Your task to perform on an android device: turn off smart reply in the gmail app Image 0: 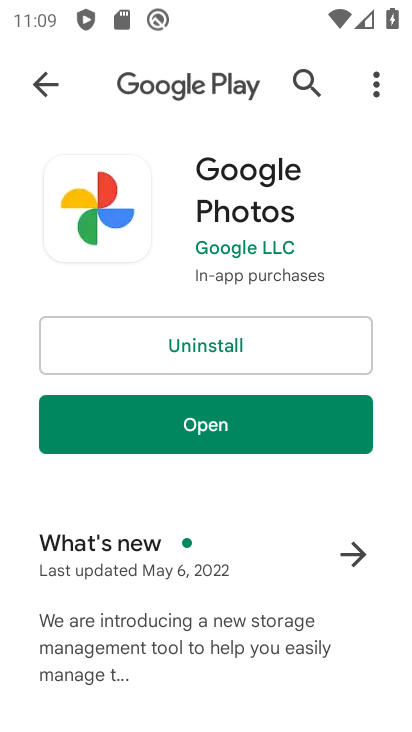
Step 0: press home button
Your task to perform on an android device: turn off smart reply in the gmail app Image 1: 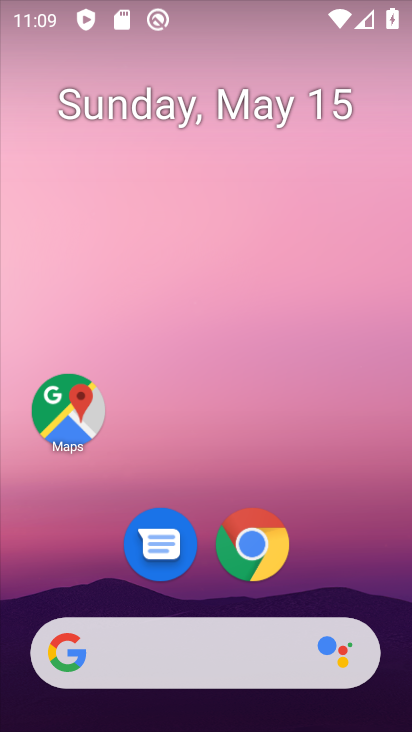
Step 1: drag from (381, 563) to (343, 262)
Your task to perform on an android device: turn off smart reply in the gmail app Image 2: 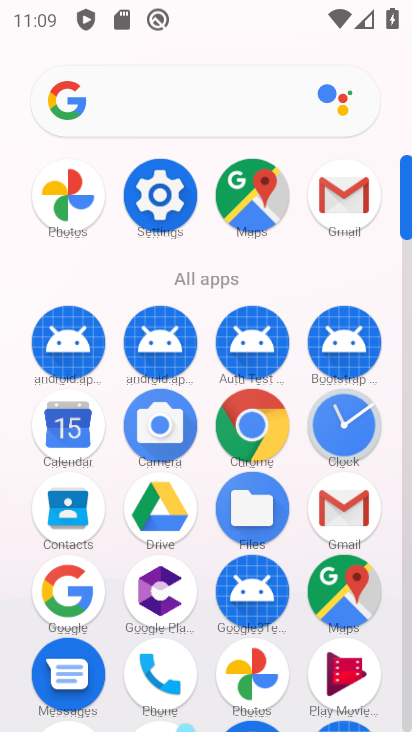
Step 2: click (352, 177)
Your task to perform on an android device: turn off smart reply in the gmail app Image 3: 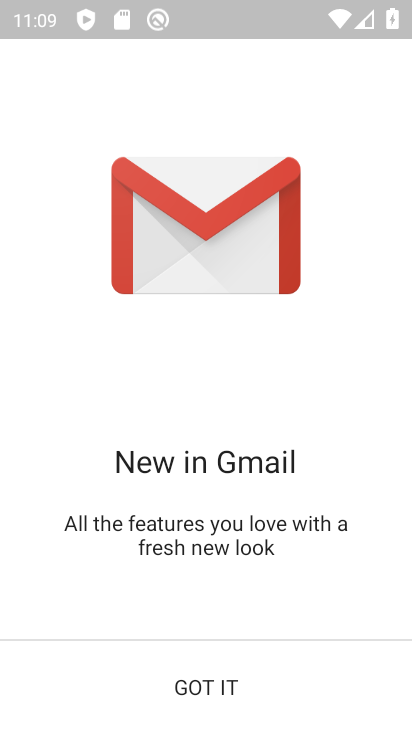
Step 3: click (200, 691)
Your task to perform on an android device: turn off smart reply in the gmail app Image 4: 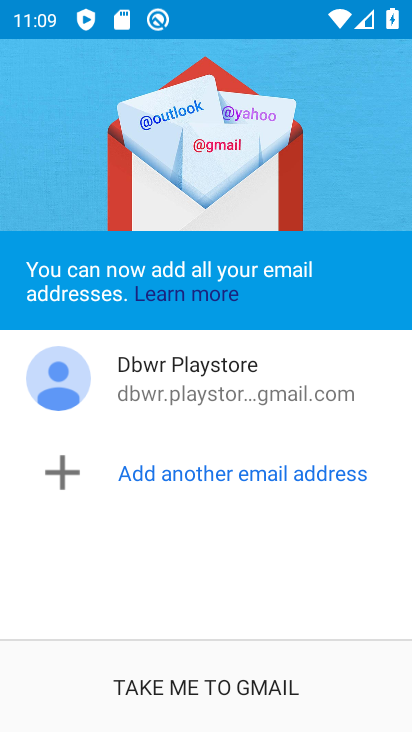
Step 4: click (264, 685)
Your task to perform on an android device: turn off smart reply in the gmail app Image 5: 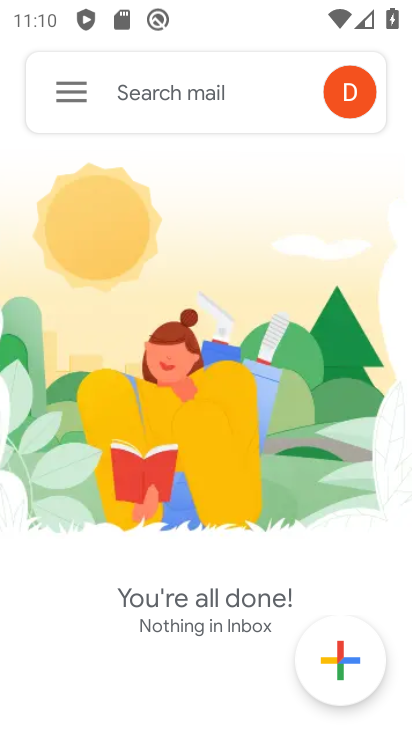
Step 5: click (68, 98)
Your task to perform on an android device: turn off smart reply in the gmail app Image 6: 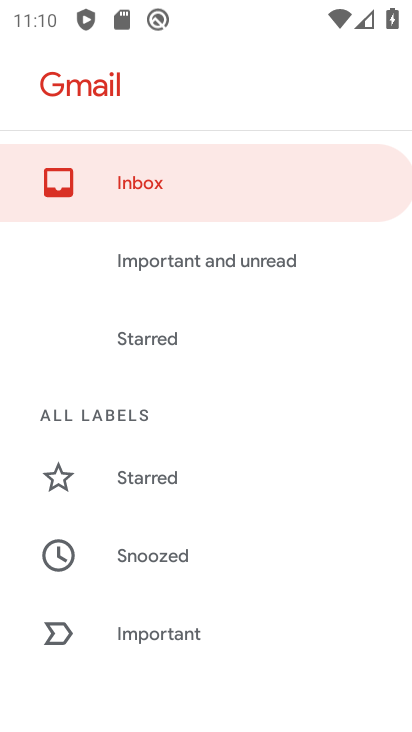
Step 6: drag from (279, 648) to (202, 220)
Your task to perform on an android device: turn off smart reply in the gmail app Image 7: 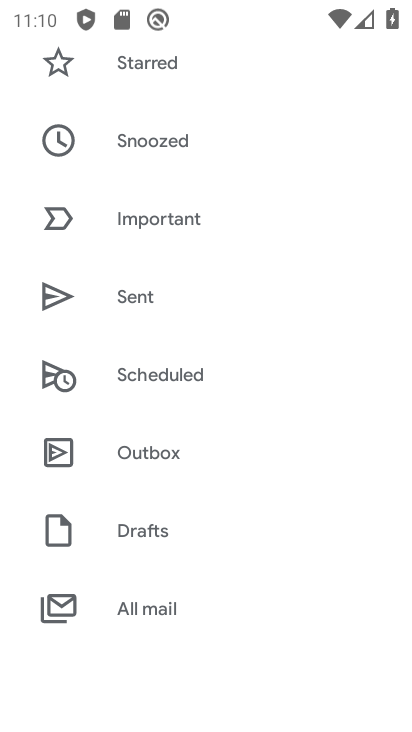
Step 7: drag from (306, 595) to (180, 108)
Your task to perform on an android device: turn off smart reply in the gmail app Image 8: 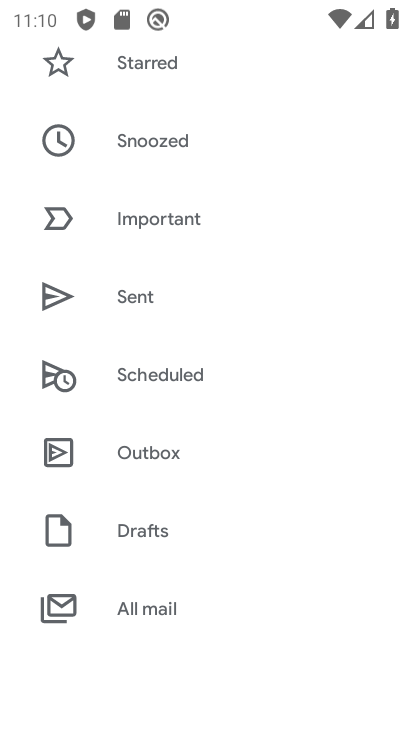
Step 8: drag from (225, 642) to (197, 183)
Your task to perform on an android device: turn off smart reply in the gmail app Image 9: 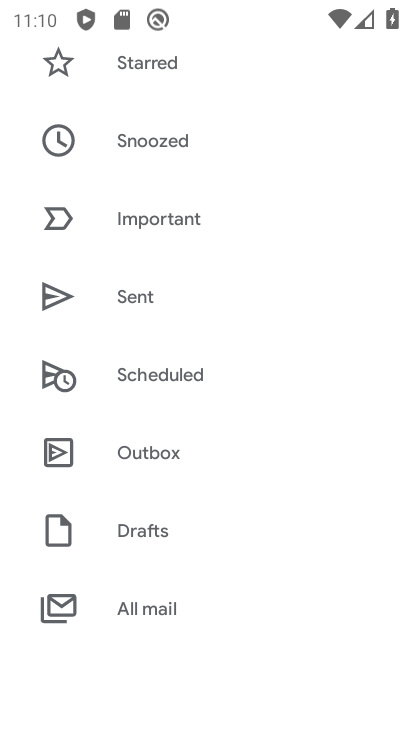
Step 9: drag from (361, 572) to (272, 30)
Your task to perform on an android device: turn off smart reply in the gmail app Image 10: 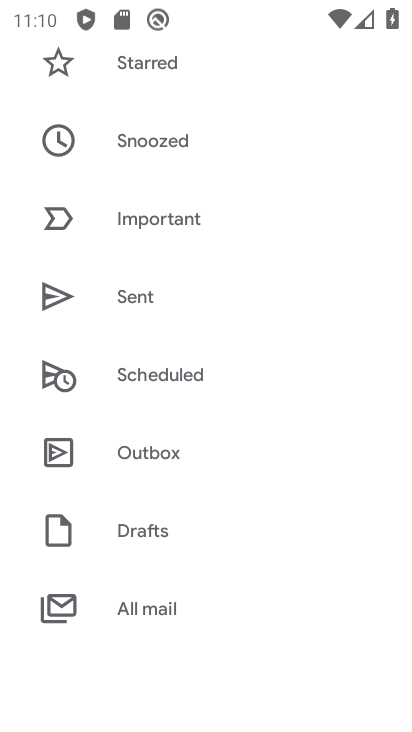
Step 10: drag from (195, 625) to (225, 60)
Your task to perform on an android device: turn off smart reply in the gmail app Image 11: 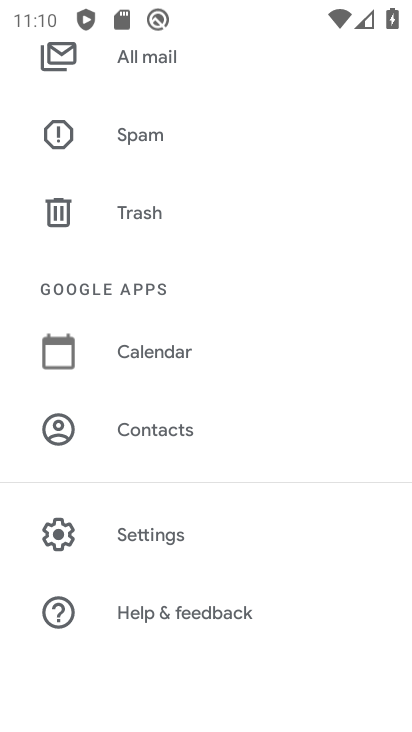
Step 11: click (263, 542)
Your task to perform on an android device: turn off smart reply in the gmail app Image 12: 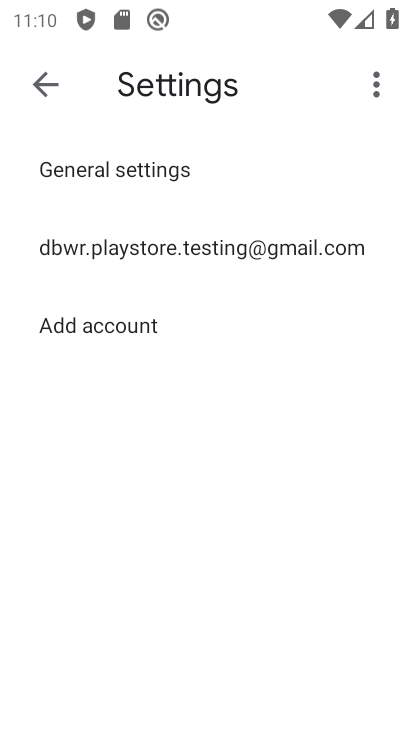
Step 12: click (261, 237)
Your task to perform on an android device: turn off smart reply in the gmail app Image 13: 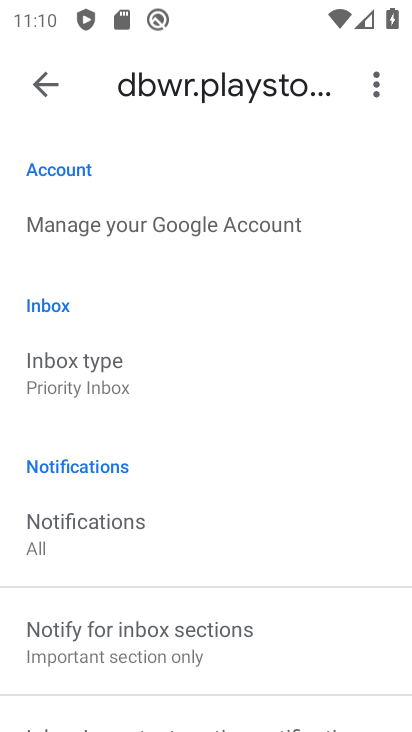
Step 13: drag from (244, 587) to (228, 39)
Your task to perform on an android device: turn off smart reply in the gmail app Image 14: 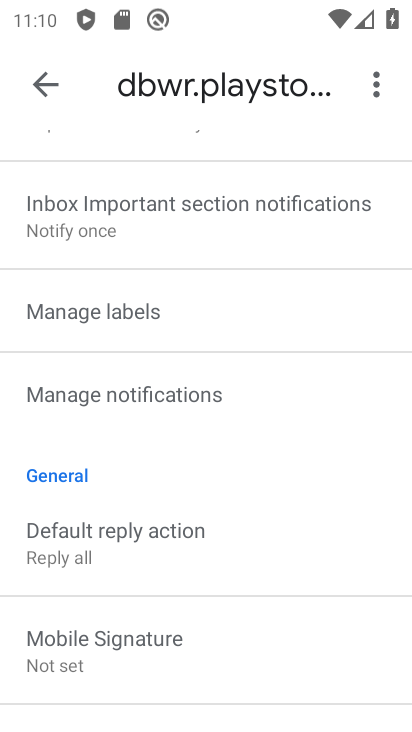
Step 14: drag from (287, 592) to (245, 206)
Your task to perform on an android device: turn off smart reply in the gmail app Image 15: 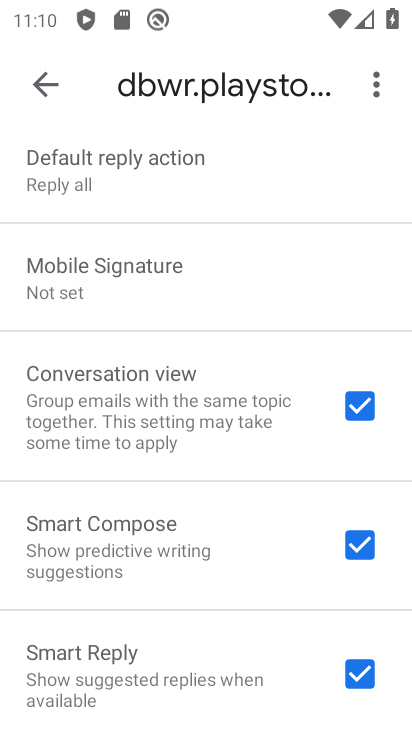
Step 15: click (356, 679)
Your task to perform on an android device: turn off smart reply in the gmail app Image 16: 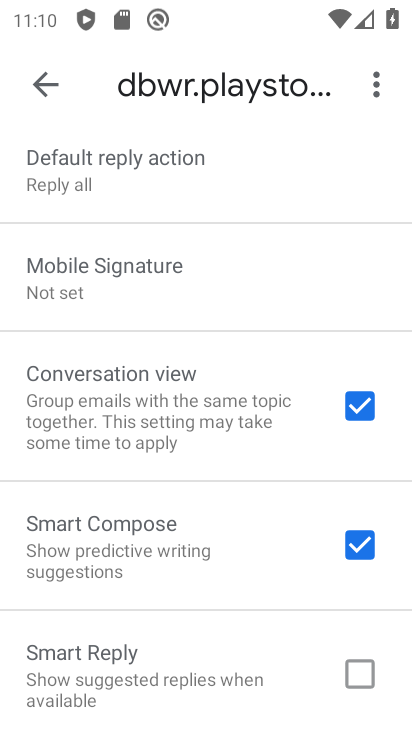
Step 16: task complete